Your task to perform on an android device: Open internet settings Image 0: 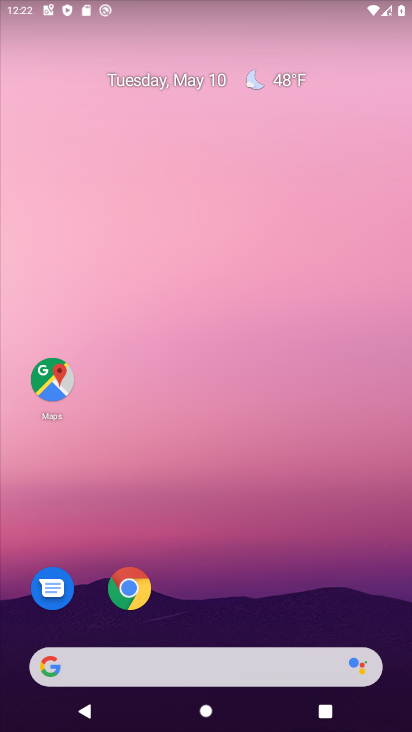
Step 0: drag from (242, 605) to (263, 230)
Your task to perform on an android device: Open internet settings Image 1: 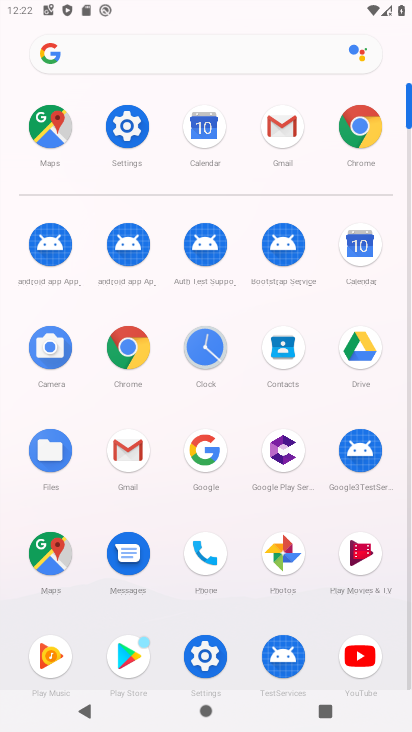
Step 1: click (118, 124)
Your task to perform on an android device: Open internet settings Image 2: 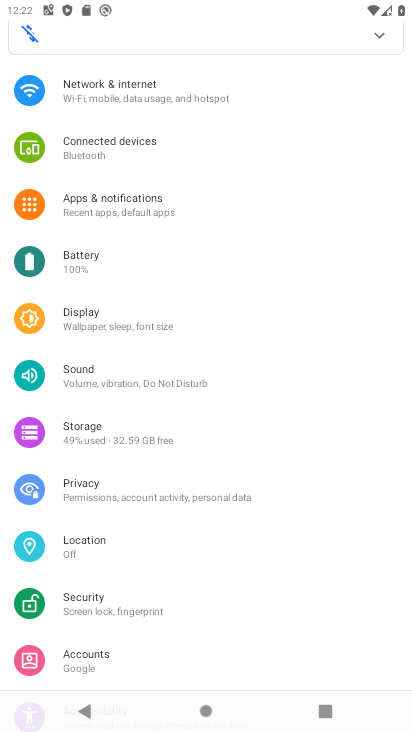
Step 2: click (169, 97)
Your task to perform on an android device: Open internet settings Image 3: 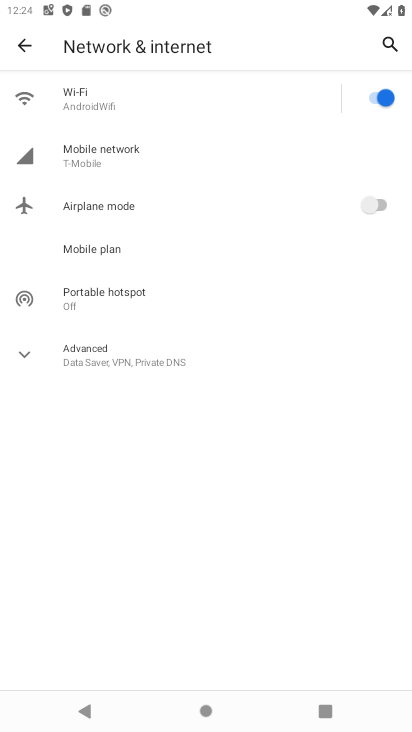
Step 3: task complete